Your task to perform on an android device: Add "logitech g933" to the cart on walmart.com Image 0: 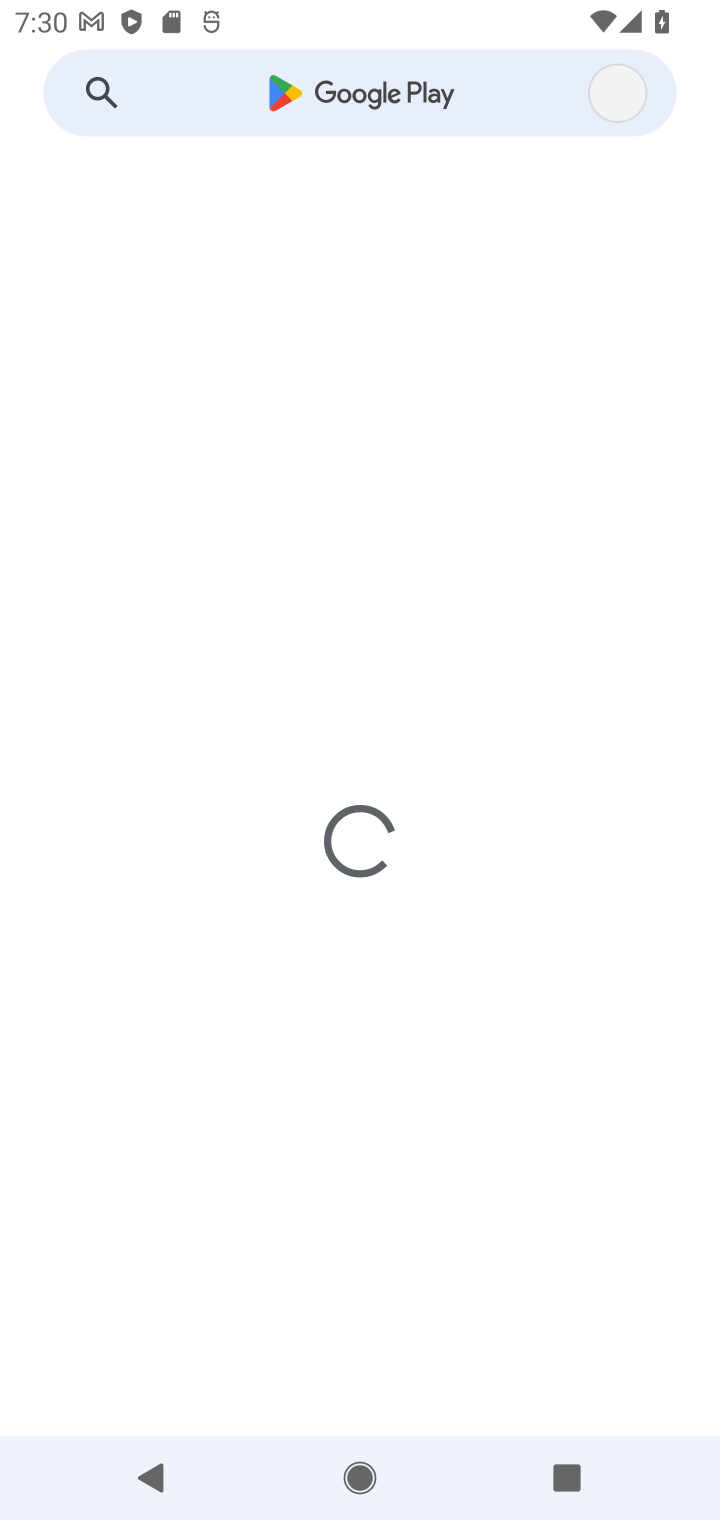
Step 0: press home button
Your task to perform on an android device: Add "logitech g933" to the cart on walmart.com Image 1: 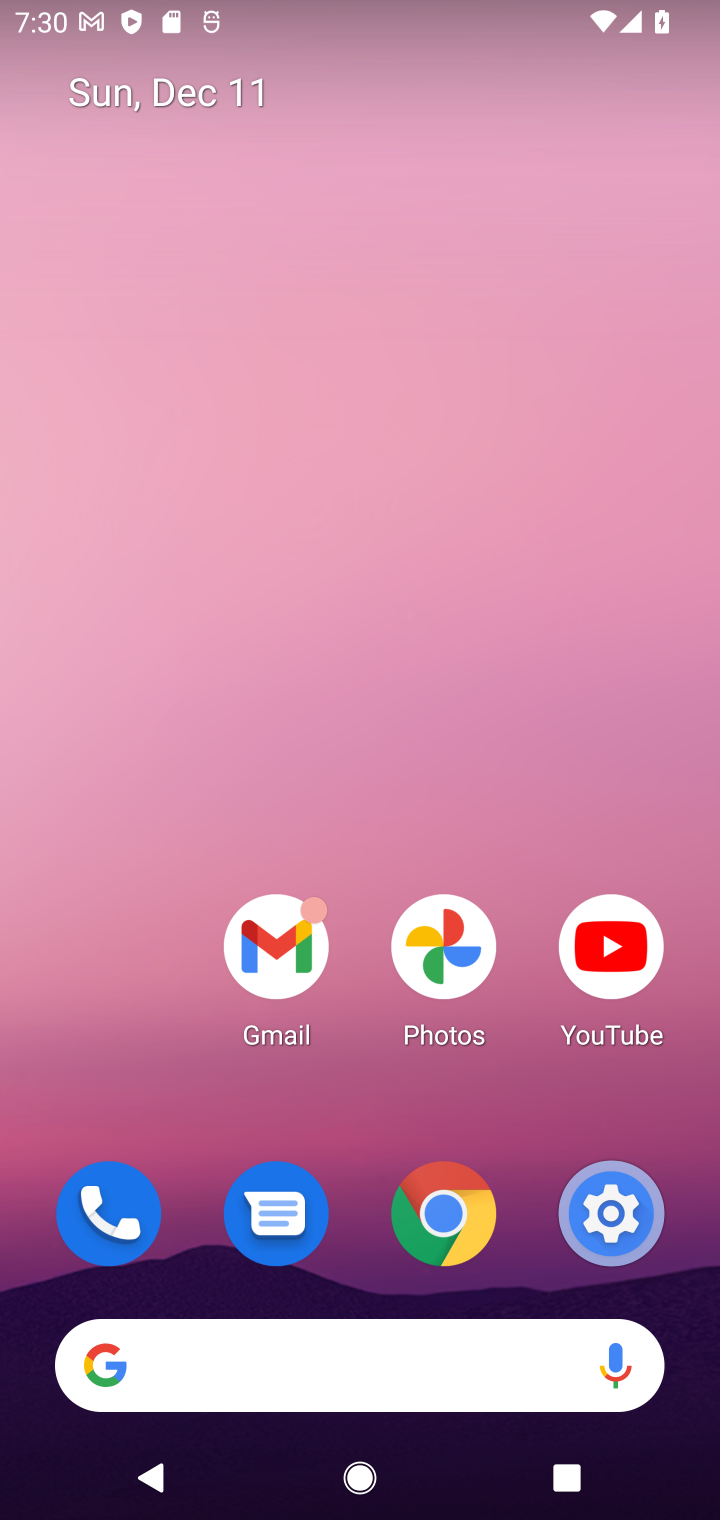
Step 1: click (285, 1379)
Your task to perform on an android device: Add "logitech g933" to the cart on walmart.com Image 2: 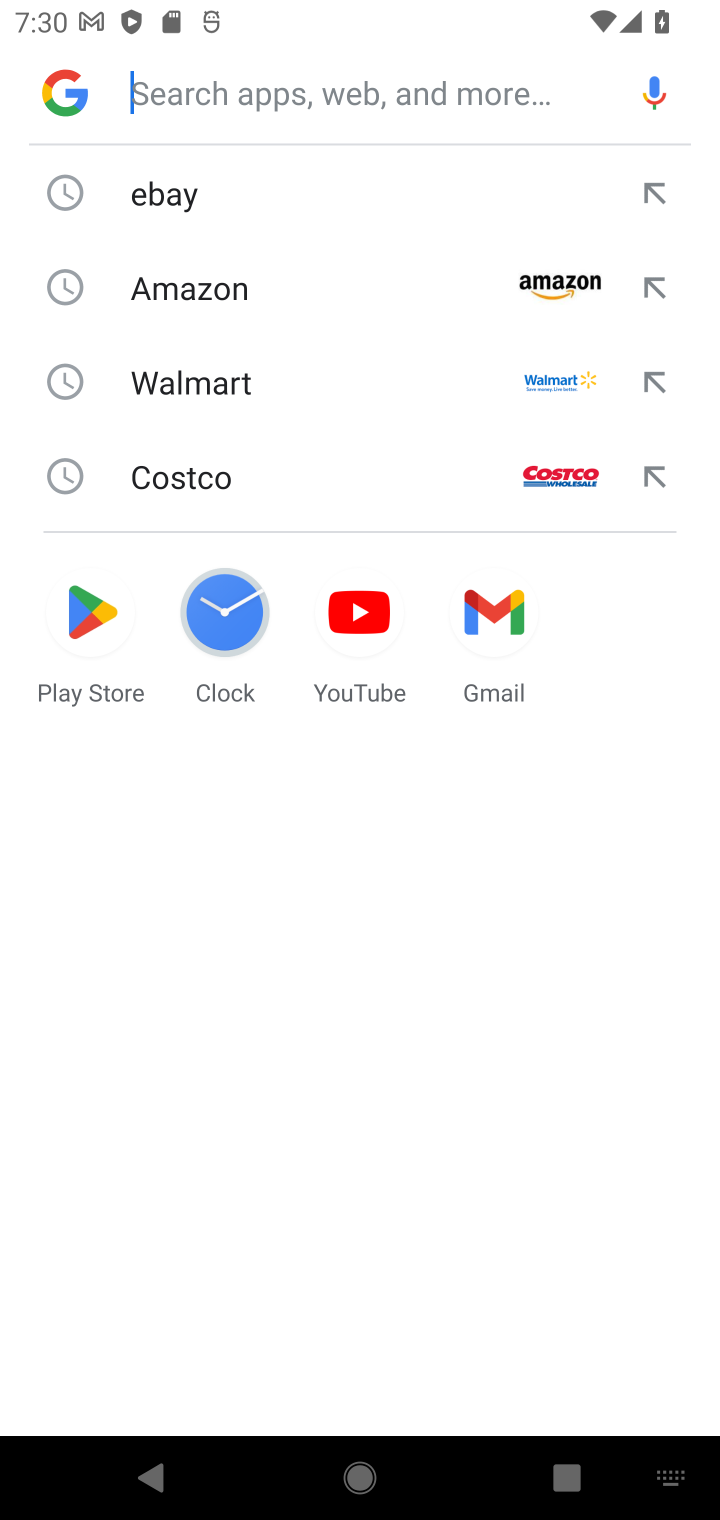
Step 2: type "walmart"
Your task to perform on an android device: Add "logitech g933" to the cart on walmart.com Image 3: 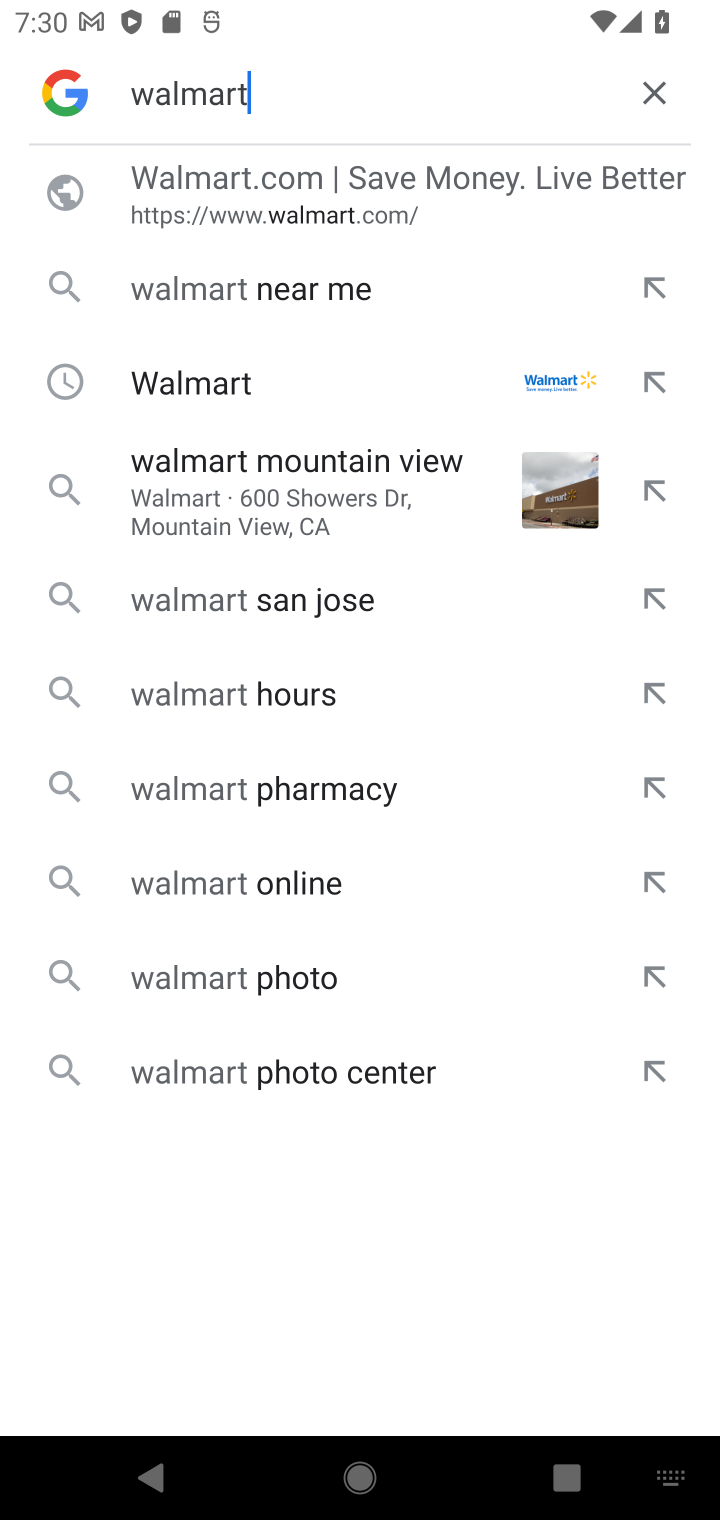
Step 3: click (367, 225)
Your task to perform on an android device: Add "logitech g933" to the cart on walmart.com Image 4: 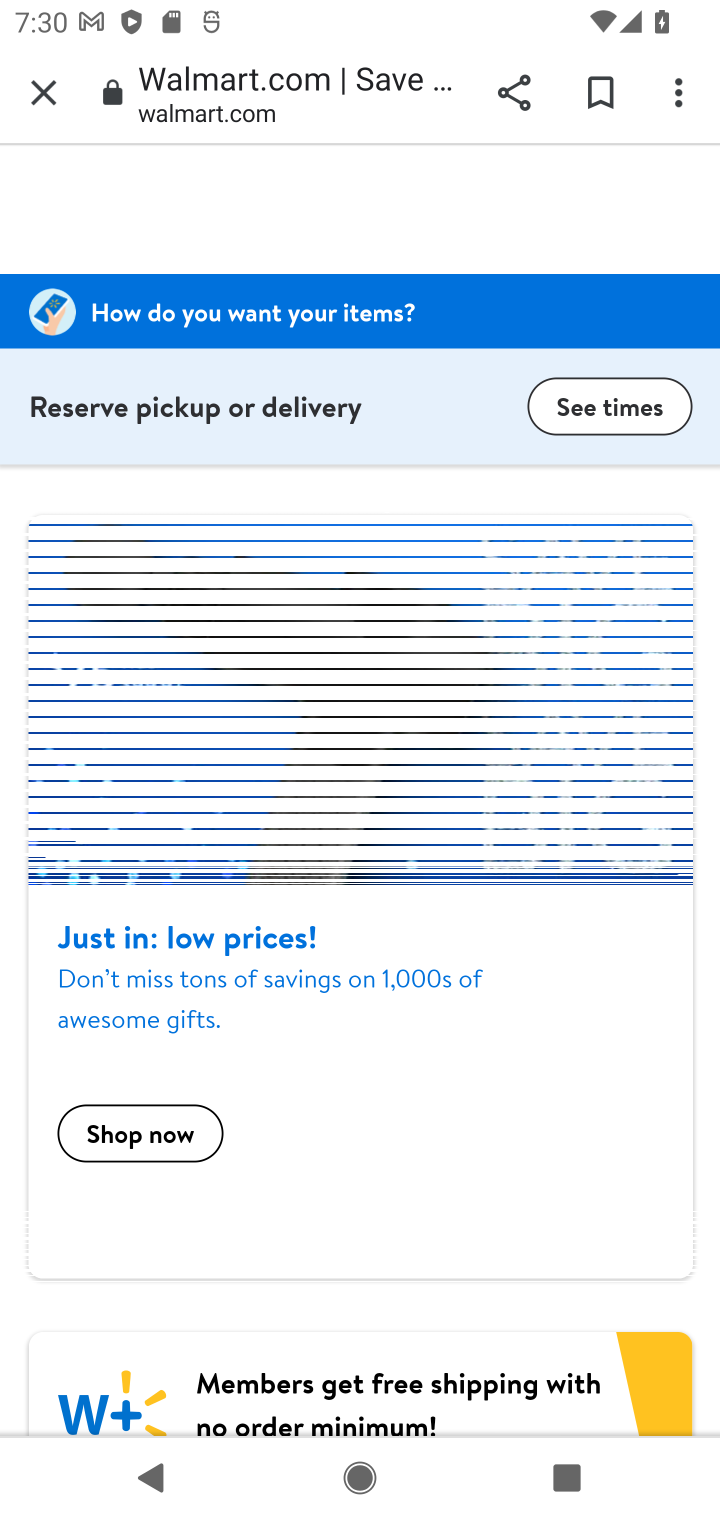
Step 4: click (326, 228)
Your task to perform on an android device: Add "logitech g933" to the cart on walmart.com Image 5: 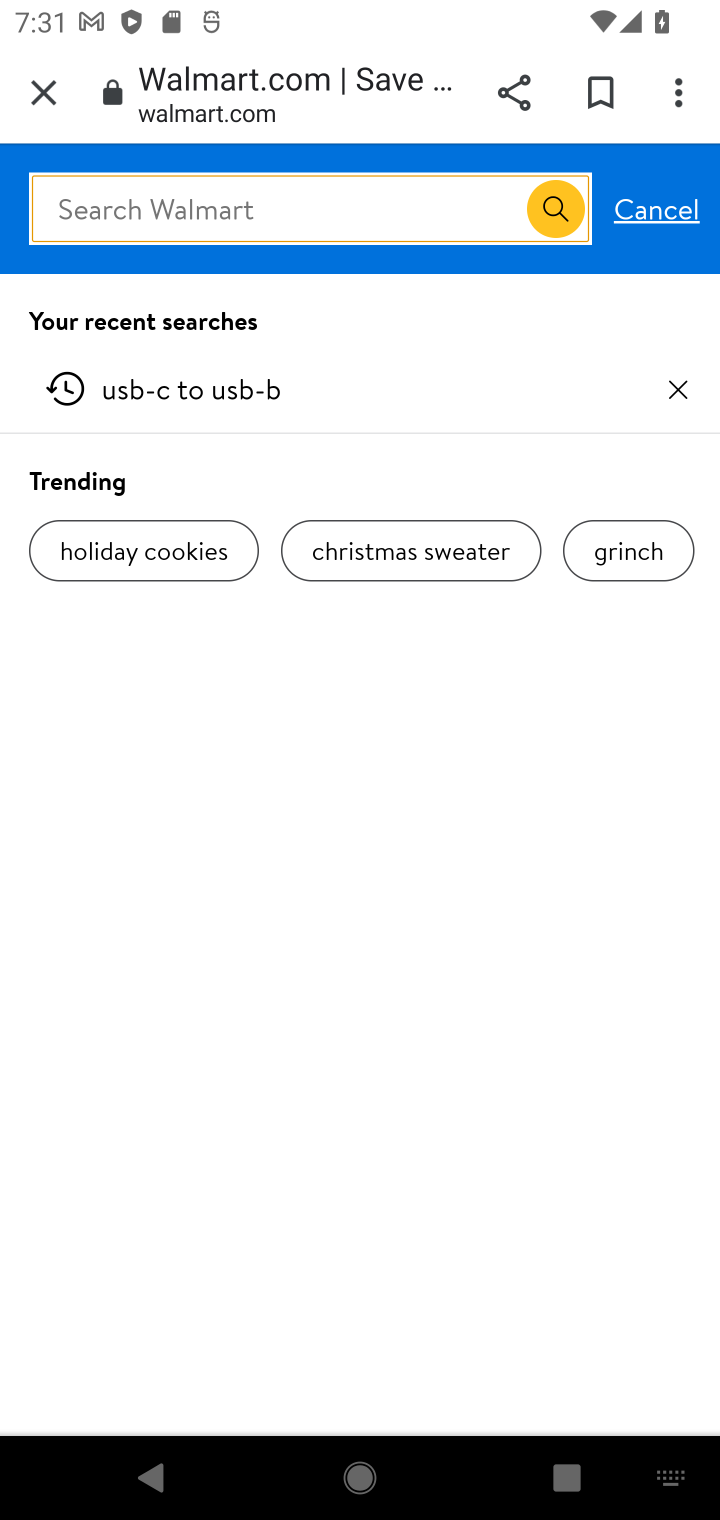
Step 5: type "logitech g933"
Your task to perform on an android device: Add "logitech g933" to the cart on walmart.com Image 6: 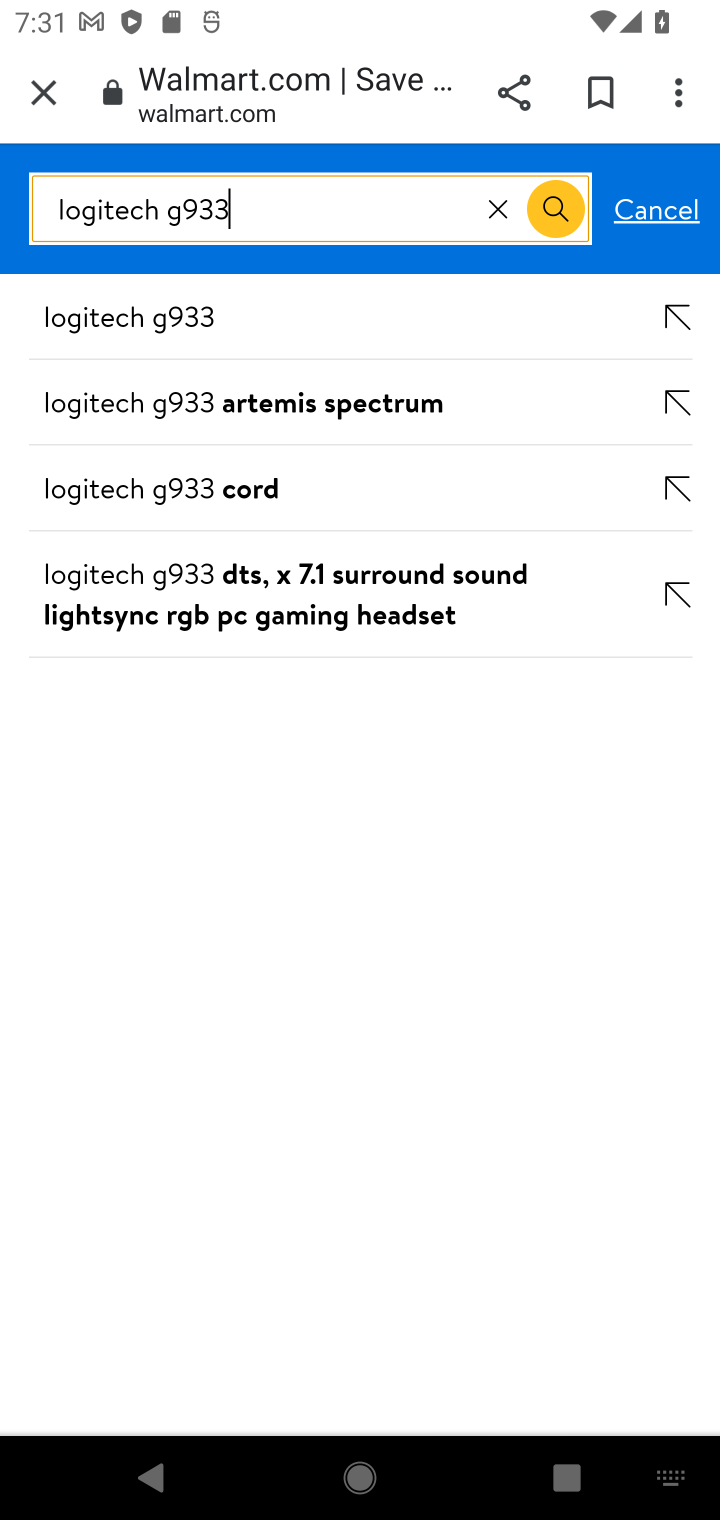
Step 6: click (210, 326)
Your task to perform on an android device: Add "logitech g933" to the cart on walmart.com Image 7: 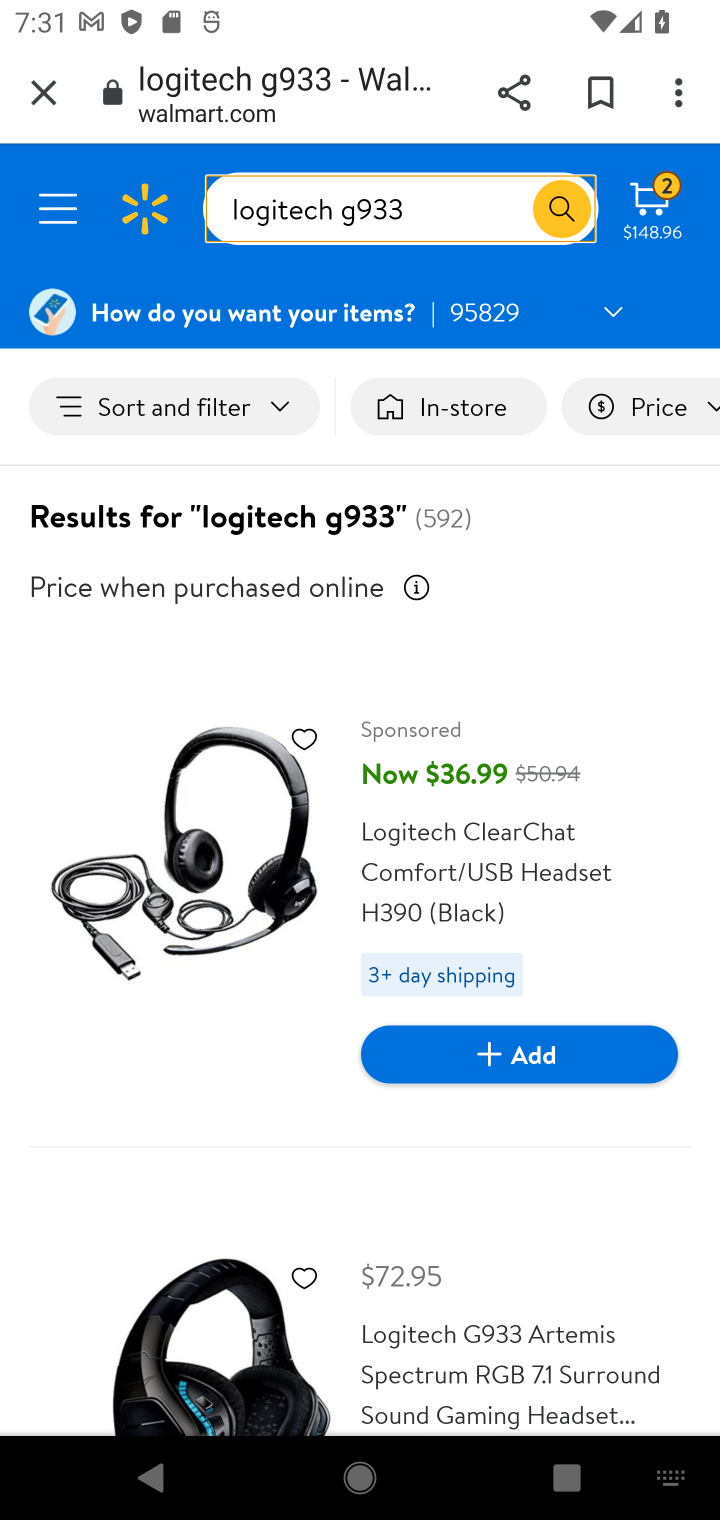
Step 7: click (487, 1062)
Your task to perform on an android device: Add "logitech g933" to the cart on walmart.com Image 8: 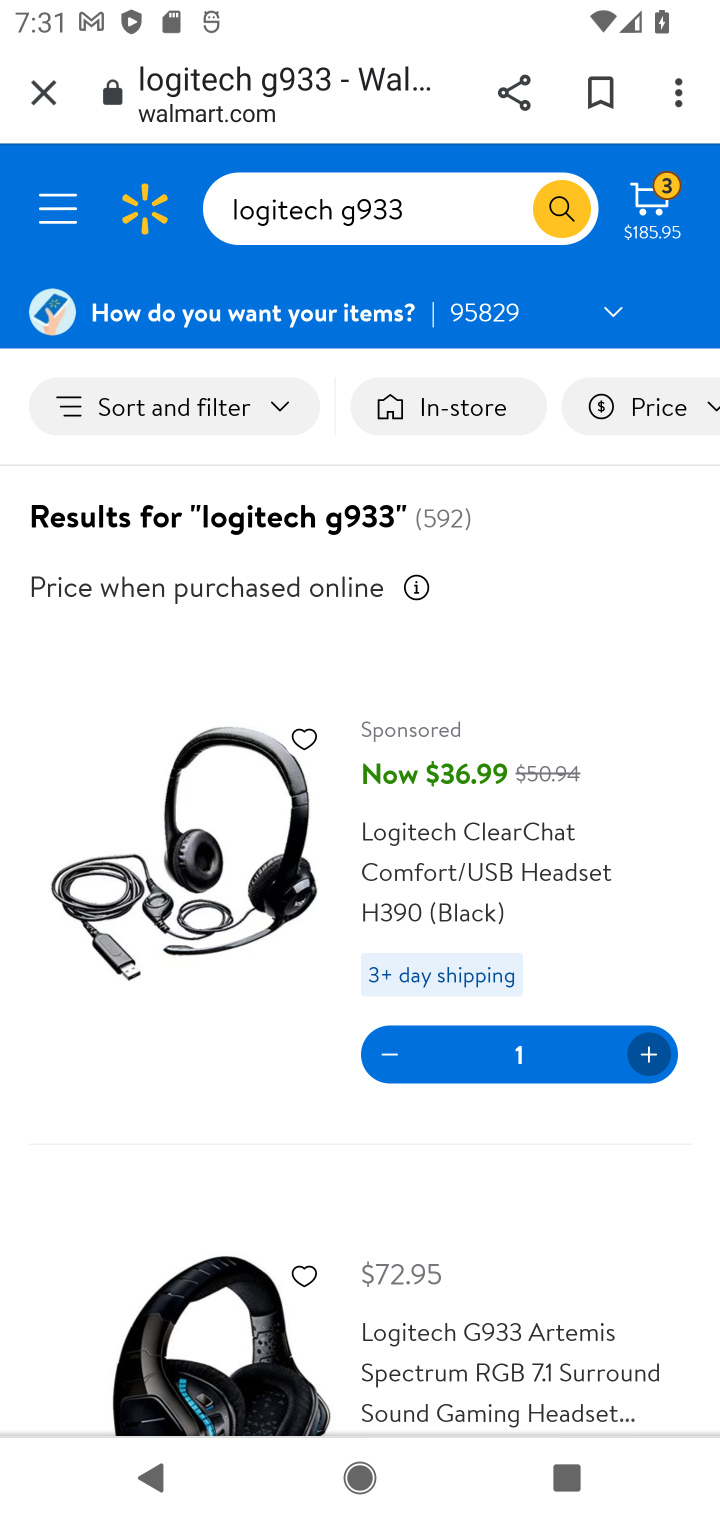
Step 8: task complete